Your task to perform on an android device: turn notification dots off Image 0: 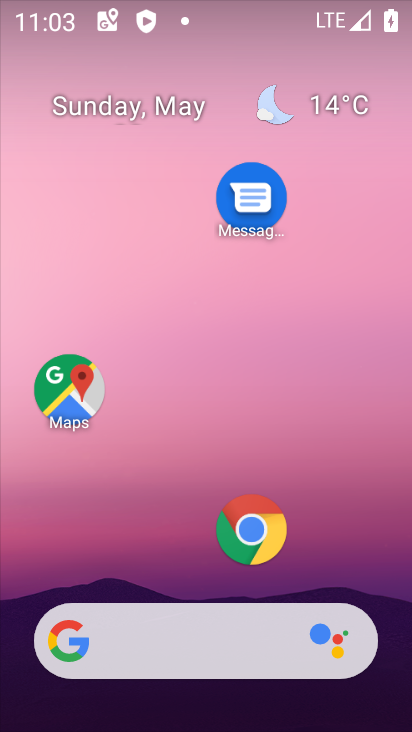
Step 0: drag from (152, 567) to (280, 11)
Your task to perform on an android device: turn notification dots off Image 1: 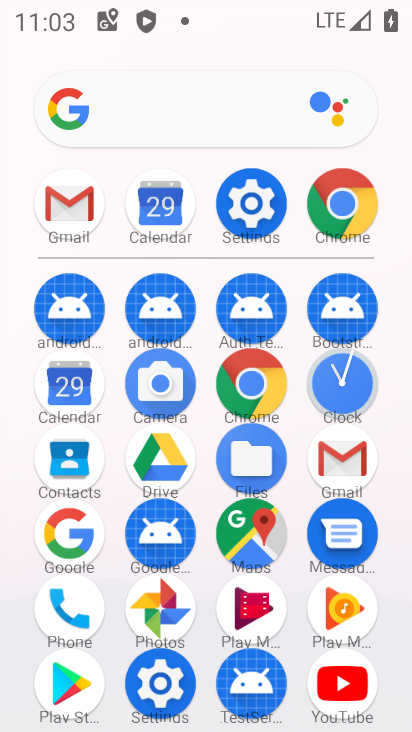
Step 1: click (258, 229)
Your task to perform on an android device: turn notification dots off Image 2: 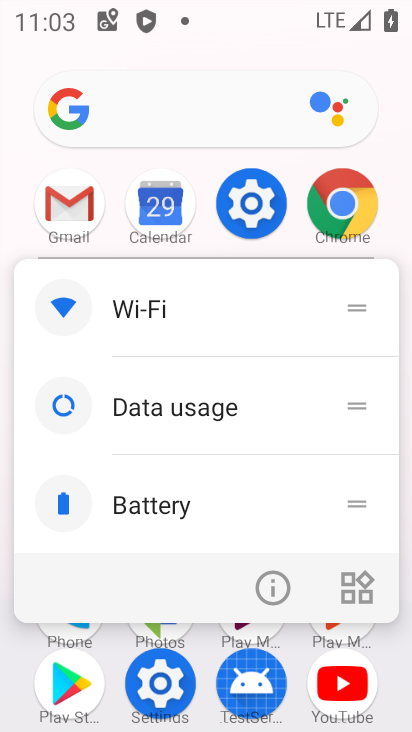
Step 2: click (263, 193)
Your task to perform on an android device: turn notification dots off Image 3: 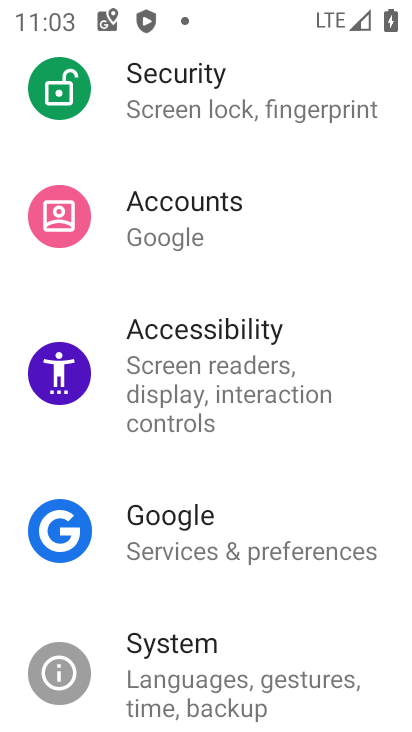
Step 3: drag from (245, 279) to (194, 718)
Your task to perform on an android device: turn notification dots off Image 4: 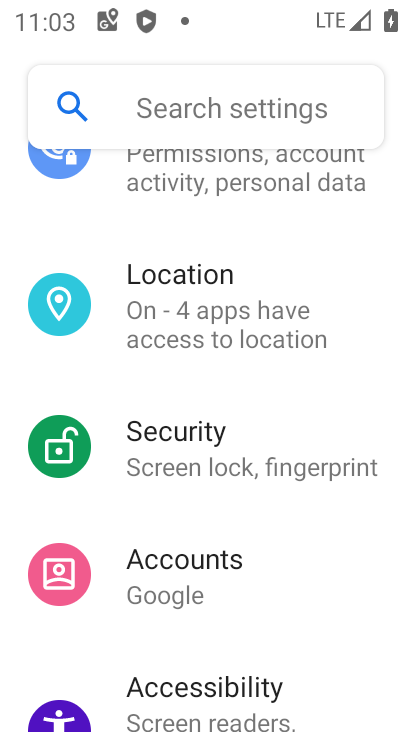
Step 4: drag from (255, 255) to (253, 712)
Your task to perform on an android device: turn notification dots off Image 5: 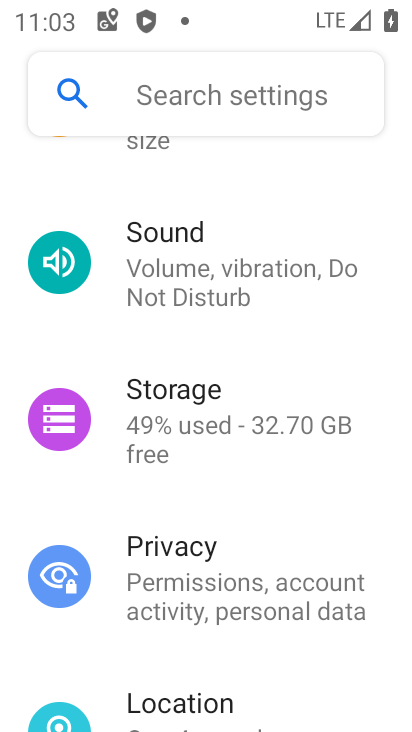
Step 5: drag from (241, 241) to (206, 717)
Your task to perform on an android device: turn notification dots off Image 6: 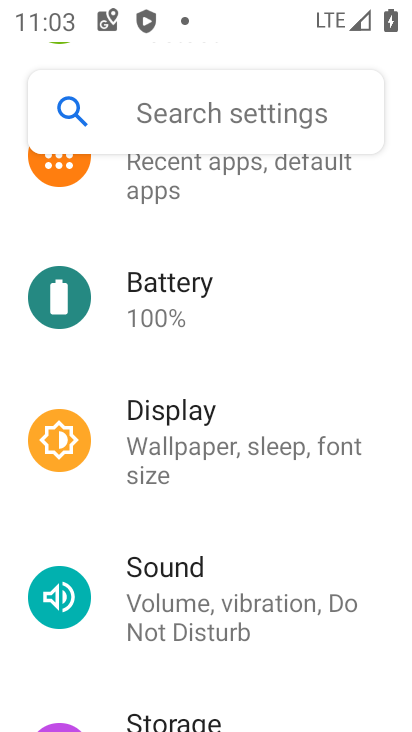
Step 6: drag from (273, 350) to (280, 708)
Your task to perform on an android device: turn notification dots off Image 7: 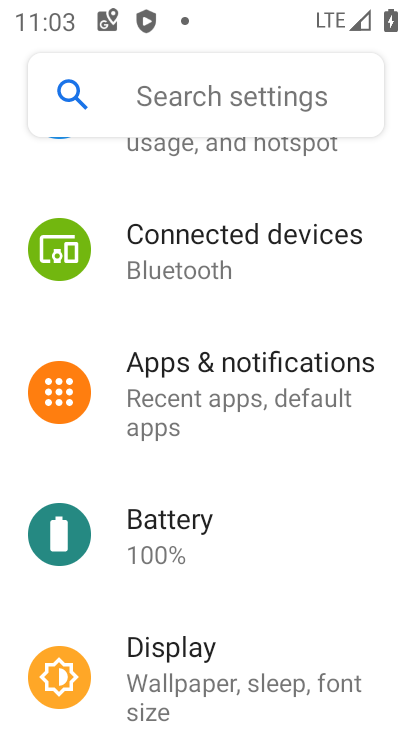
Step 7: click (256, 376)
Your task to perform on an android device: turn notification dots off Image 8: 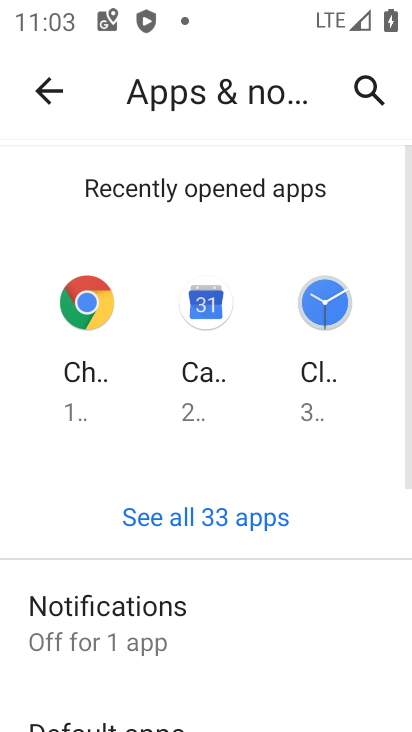
Step 8: drag from (221, 639) to (263, 252)
Your task to perform on an android device: turn notification dots off Image 9: 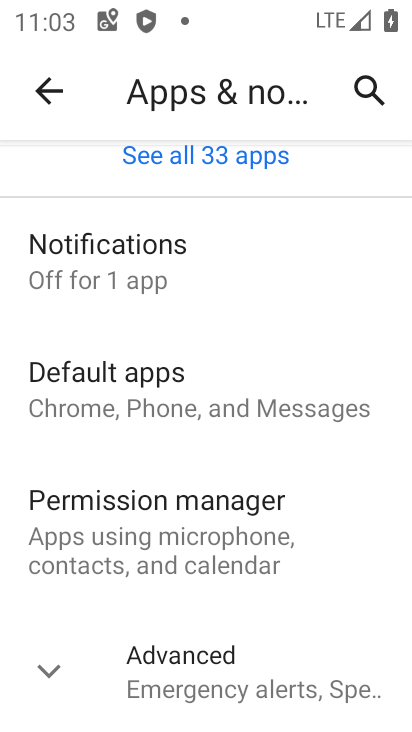
Step 9: drag from (238, 673) to (253, 417)
Your task to perform on an android device: turn notification dots off Image 10: 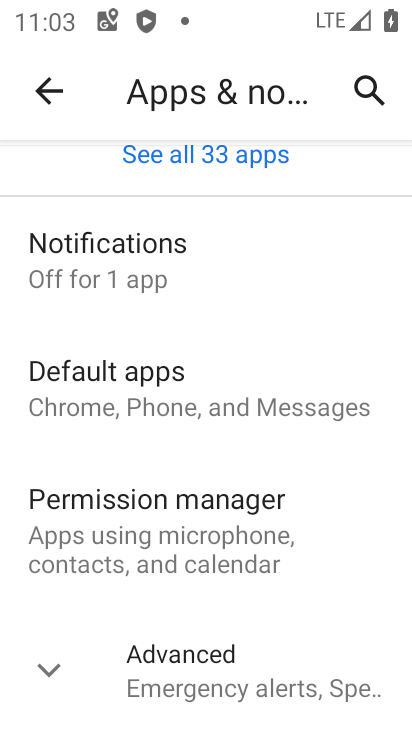
Step 10: click (147, 246)
Your task to perform on an android device: turn notification dots off Image 11: 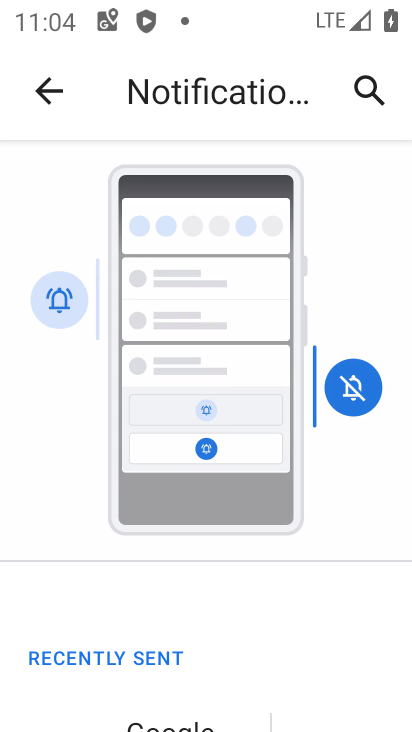
Step 11: drag from (127, 639) to (238, 84)
Your task to perform on an android device: turn notification dots off Image 12: 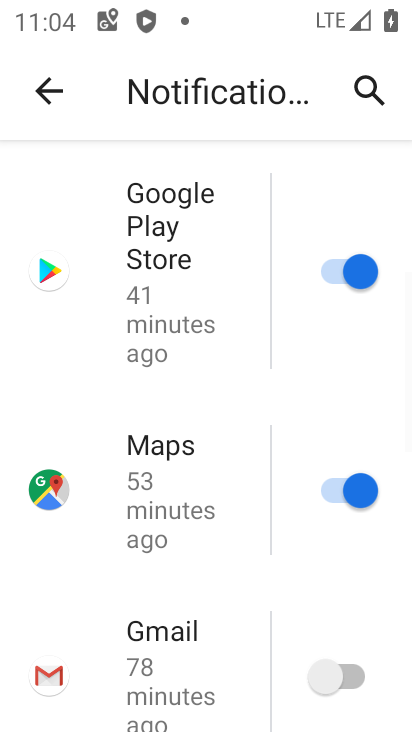
Step 12: drag from (267, 400) to (312, 125)
Your task to perform on an android device: turn notification dots off Image 13: 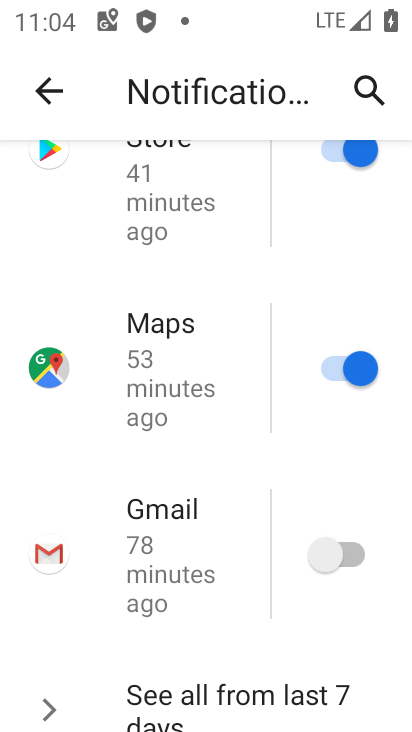
Step 13: drag from (160, 718) to (257, 132)
Your task to perform on an android device: turn notification dots off Image 14: 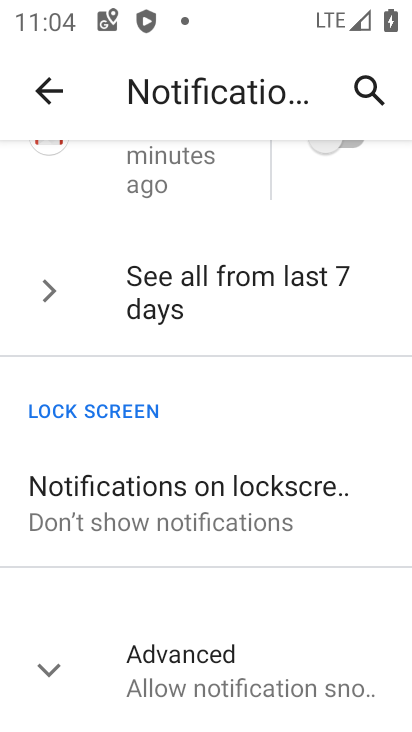
Step 14: click (148, 664)
Your task to perform on an android device: turn notification dots off Image 15: 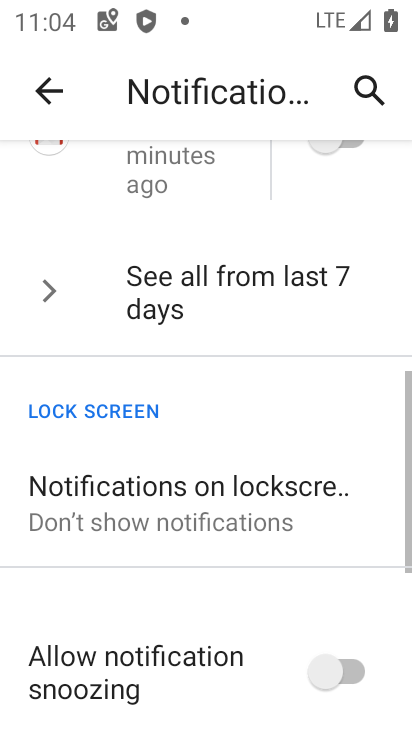
Step 15: task complete